Your task to perform on an android device: Open privacy settings Image 0: 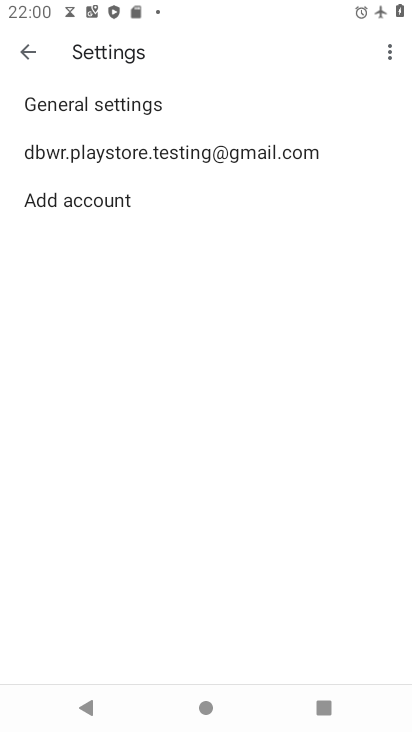
Step 0: press home button
Your task to perform on an android device: Open privacy settings Image 1: 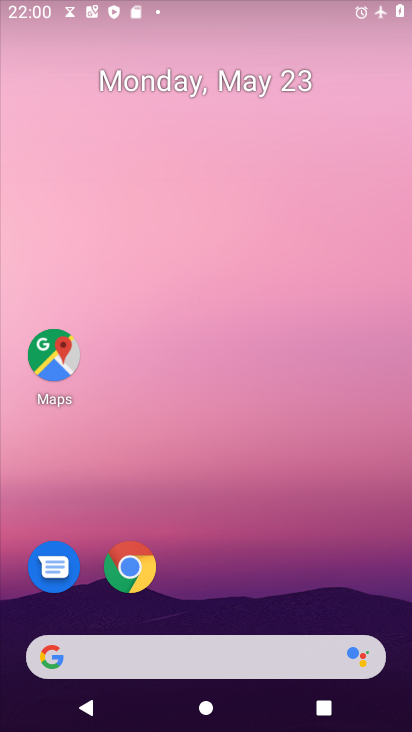
Step 1: drag from (241, 584) to (252, 263)
Your task to perform on an android device: Open privacy settings Image 2: 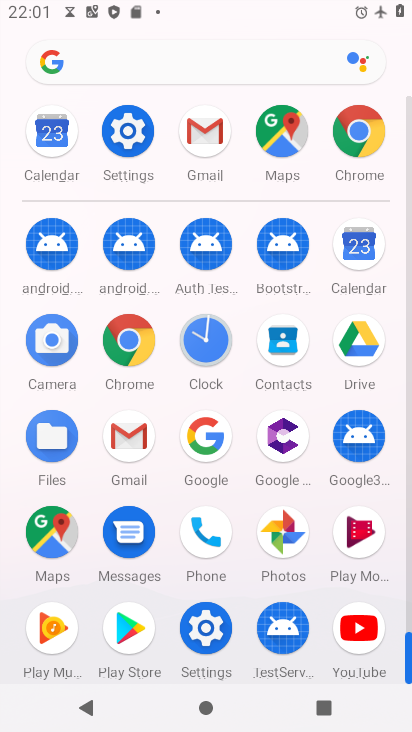
Step 2: click (136, 129)
Your task to perform on an android device: Open privacy settings Image 3: 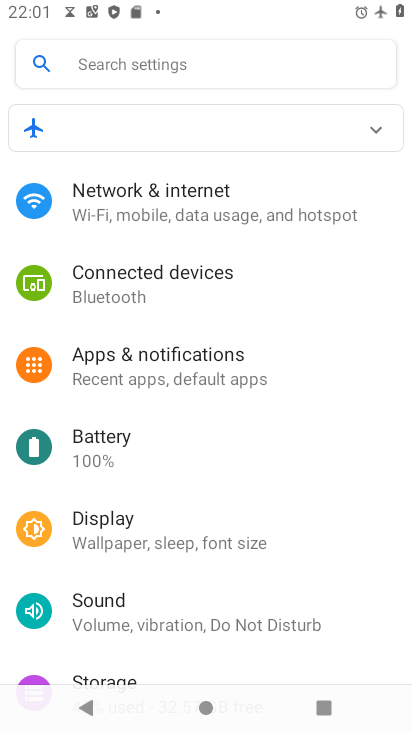
Step 3: drag from (211, 591) to (223, 258)
Your task to perform on an android device: Open privacy settings Image 4: 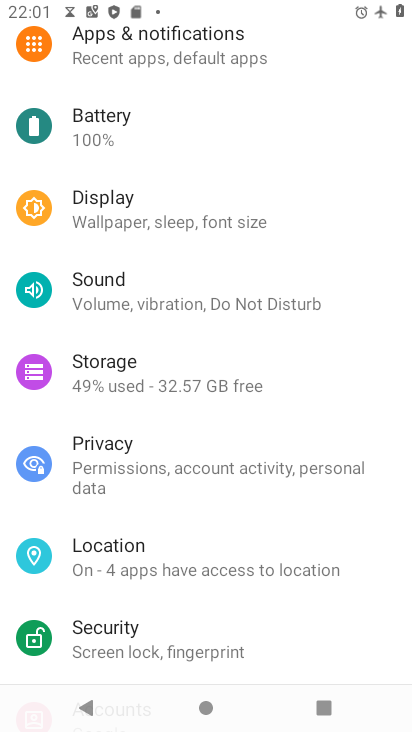
Step 4: click (135, 452)
Your task to perform on an android device: Open privacy settings Image 5: 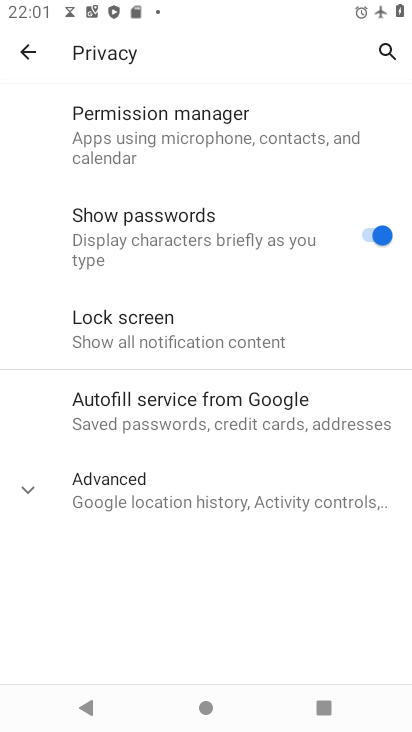
Step 5: task complete